Your task to perform on an android device: change your default location settings in chrome Image 0: 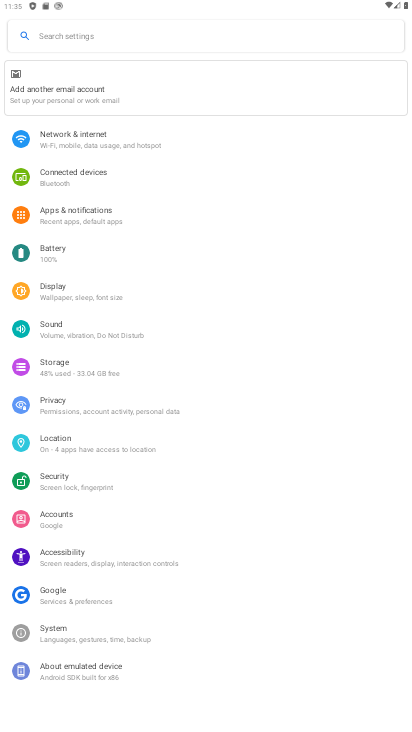
Step 0: press home button
Your task to perform on an android device: change your default location settings in chrome Image 1: 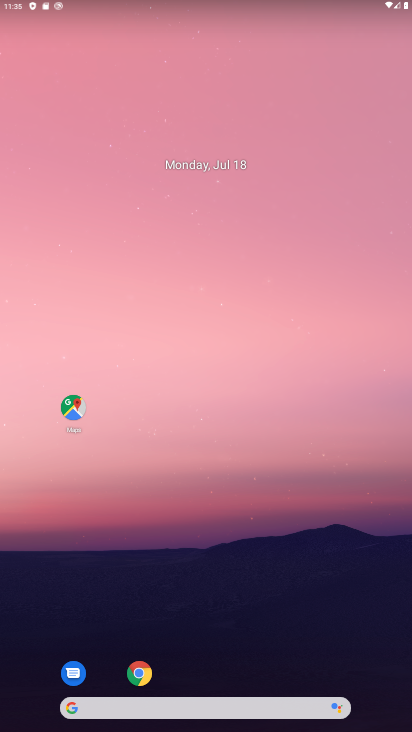
Step 1: click (141, 667)
Your task to perform on an android device: change your default location settings in chrome Image 2: 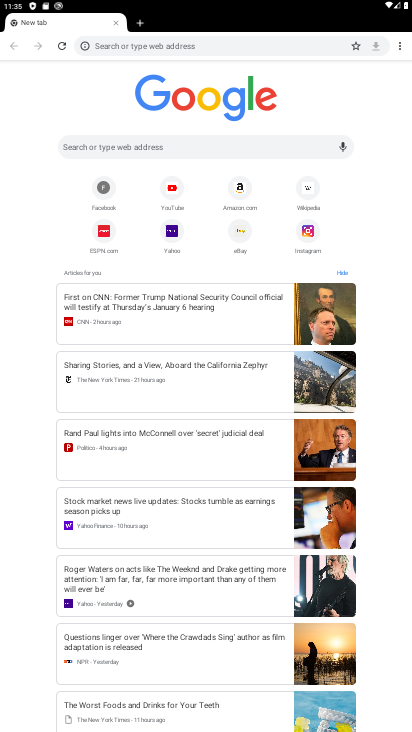
Step 2: click (396, 44)
Your task to perform on an android device: change your default location settings in chrome Image 3: 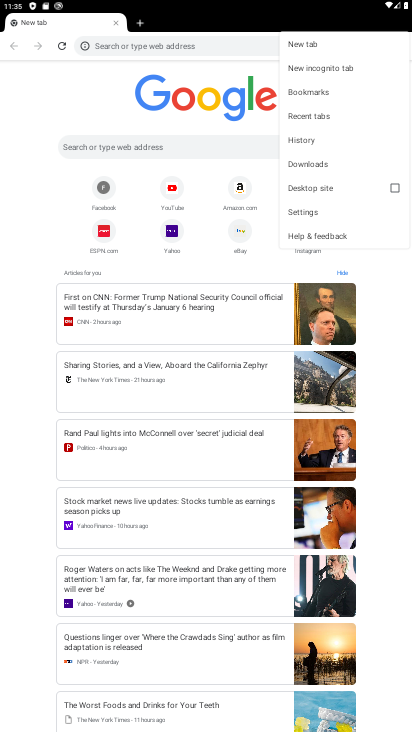
Step 3: click (323, 210)
Your task to perform on an android device: change your default location settings in chrome Image 4: 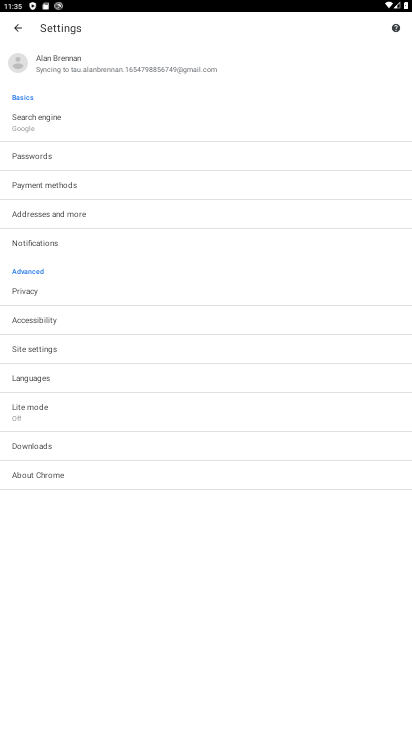
Step 4: click (67, 346)
Your task to perform on an android device: change your default location settings in chrome Image 5: 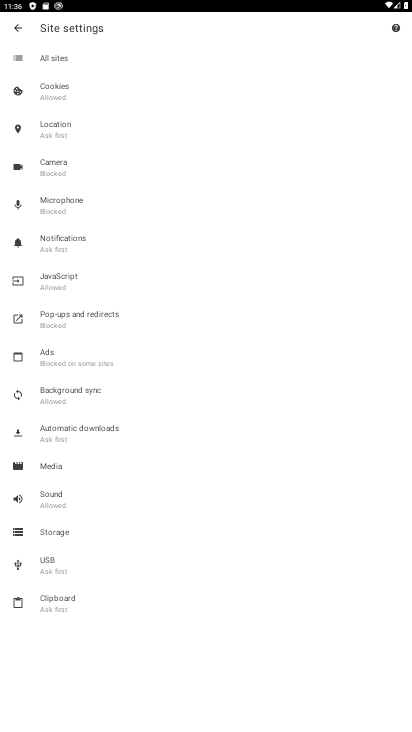
Step 5: click (60, 134)
Your task to perform on an android device: change your default location settings in chrome Image 6: 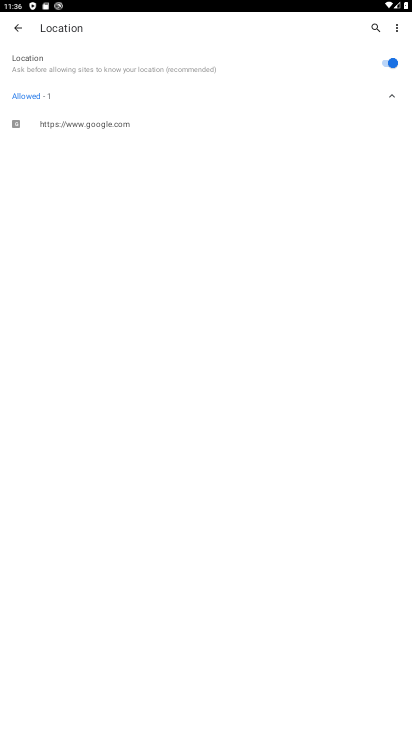
Step 6: task complete